Your task to perform on an android device: turn pop-ups on in chrome Image 0: 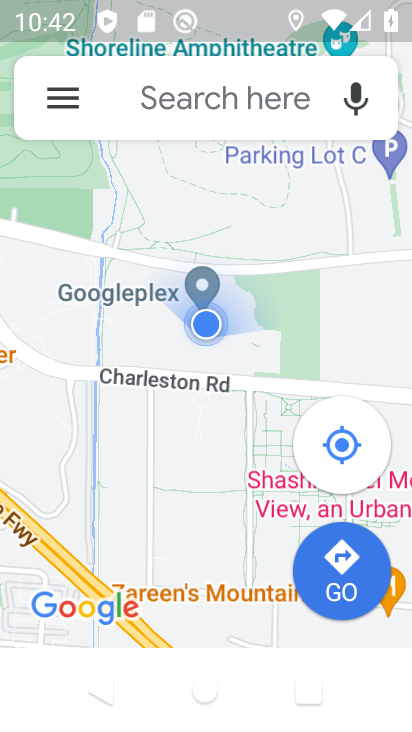
Step 0: press back button
Your task to perform on an android device: turn pop-ups on in chrome Image 1: 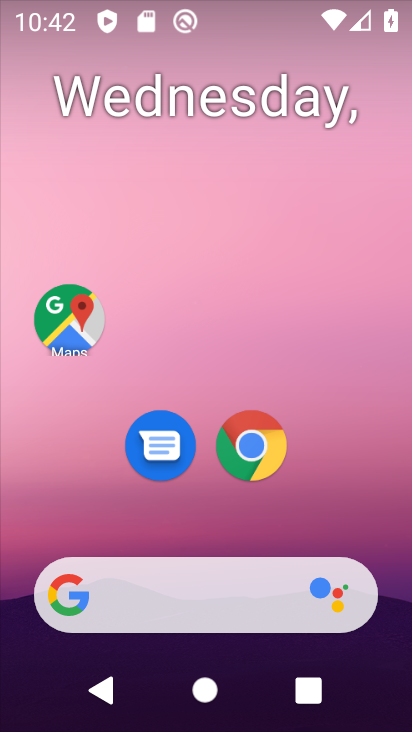
Step 1: click (241, 455)
Your task to perform on an android device: turn pop-ups on in chrome Image 2: 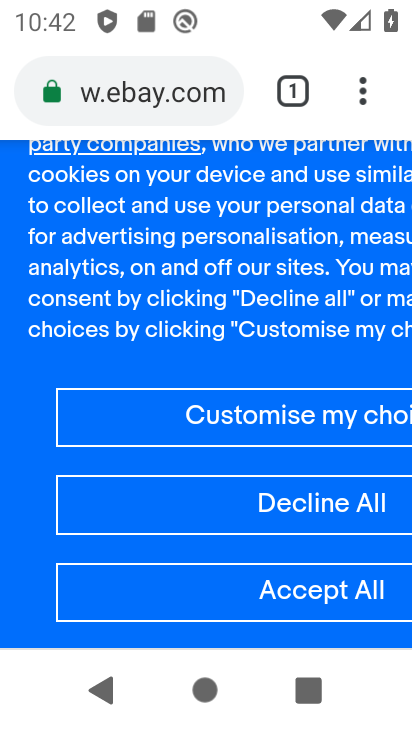
Step 2: drag from (358, 84) to (100, 490)
Your task to perform on an android device: turn pop-ups on in chrome Image 3: 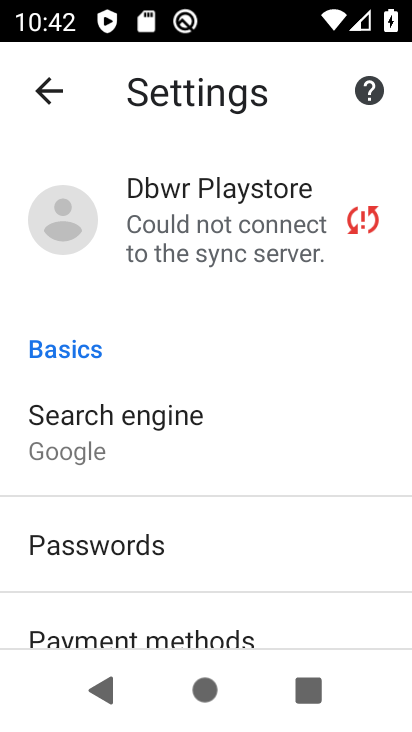
Step 3: drag from (213, 566) to (318, 41)
Your task to perform on an android device: turn pop-ups on in chrome Image 4: 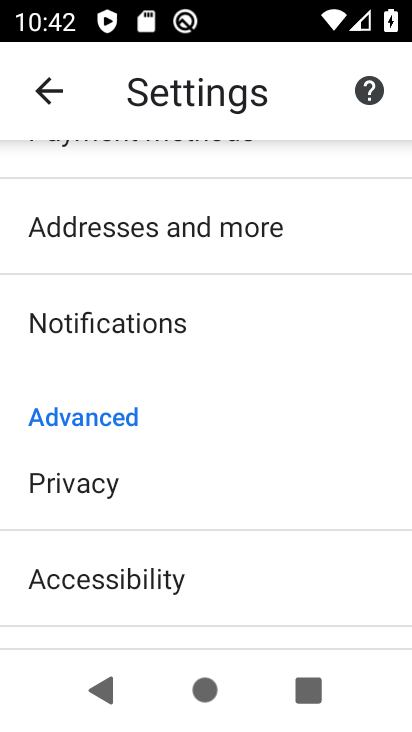
Step 4: drag from (186, 577) to (192, 242)
Your task to perform on an android device: turn pop-ups on in chrome Image 5: 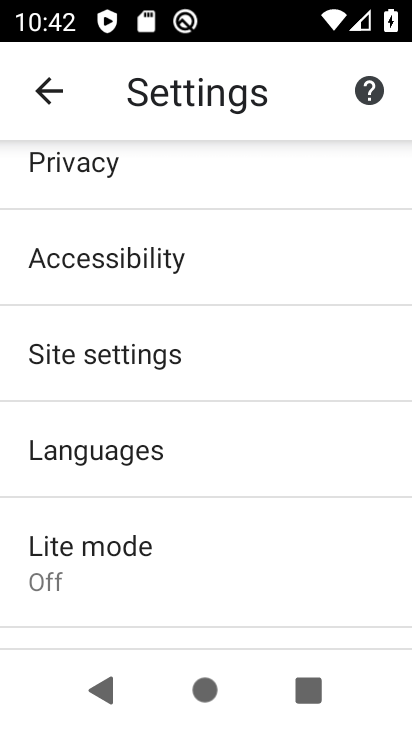
Step 5: click (105, 339)
Your task to perform on an android device: turn pop-ups on in chrome Image 6: 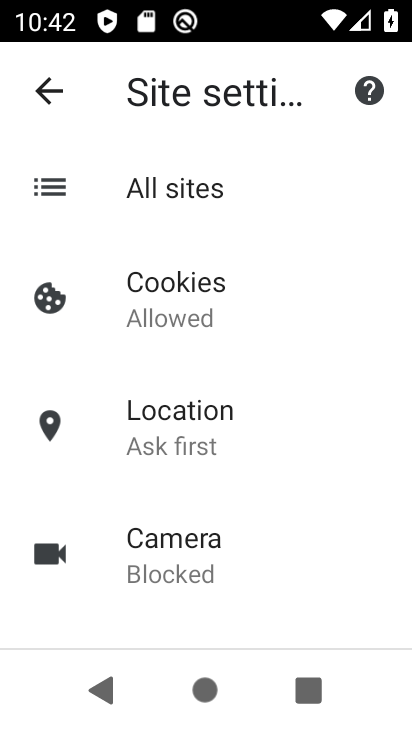
Step 6: drag from (183, 585) to (325, 33)
Your task to perform on an android device: turn pop-ups on in chrome Image 7: 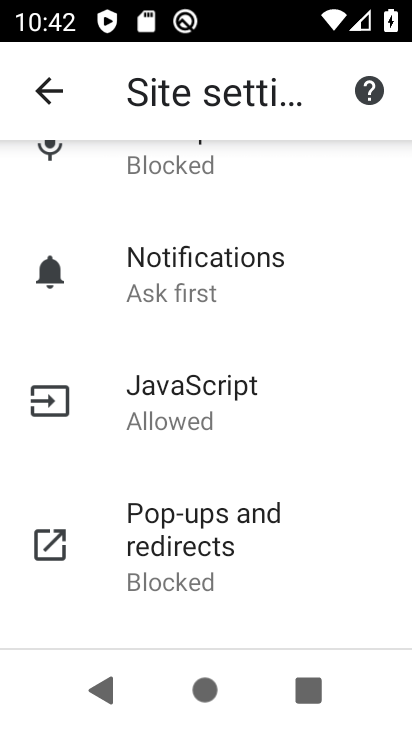
Step 7: click (188, 510)
Your task to perform on an android device: turn pop-ups on in chrome Image 8: 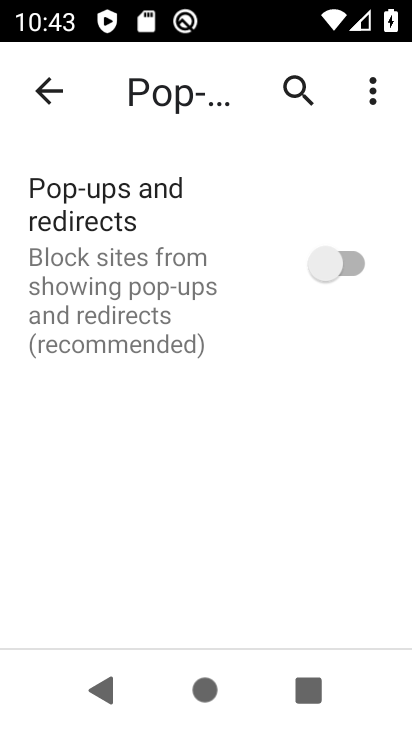
Step 8: click (344, 263)
Your task to perform on an android device: turn pop-ups on in chrome Image 9: 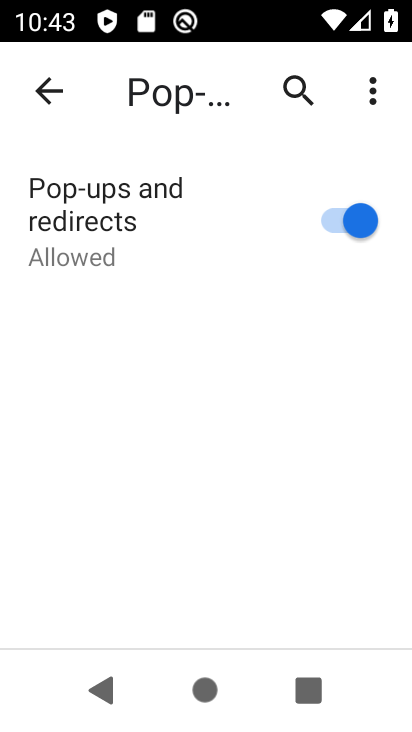
Step 9: task complete